Your task to perform on an android device: Show me recent news Image 0: 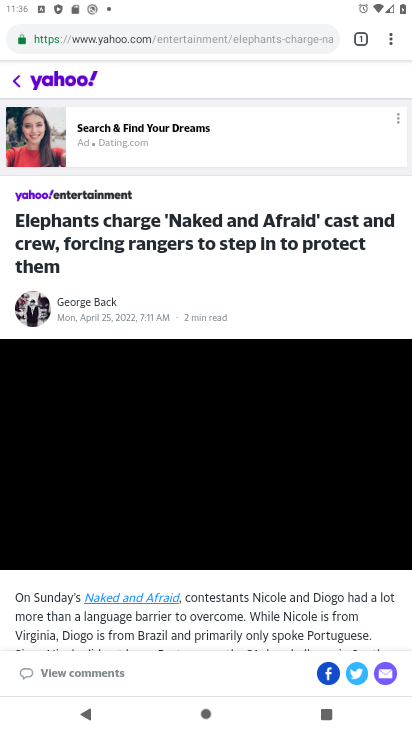
Step 0: press home button
Your task to perform on an android device: Show me recent news Image 1: 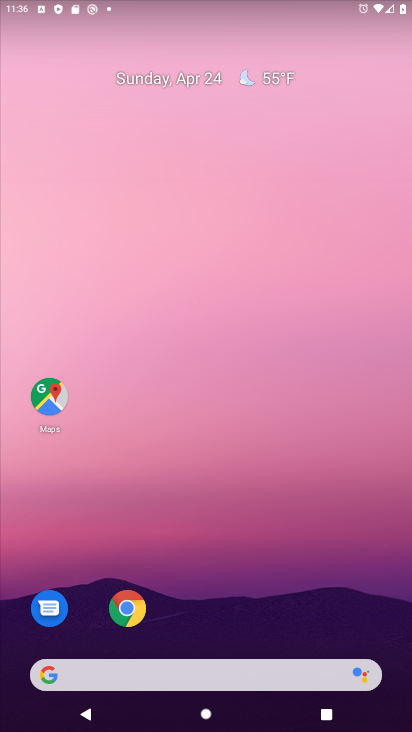
Step 1: task complete